Your task to perform on an android device: turn off data saver in the chrome app Image 0: 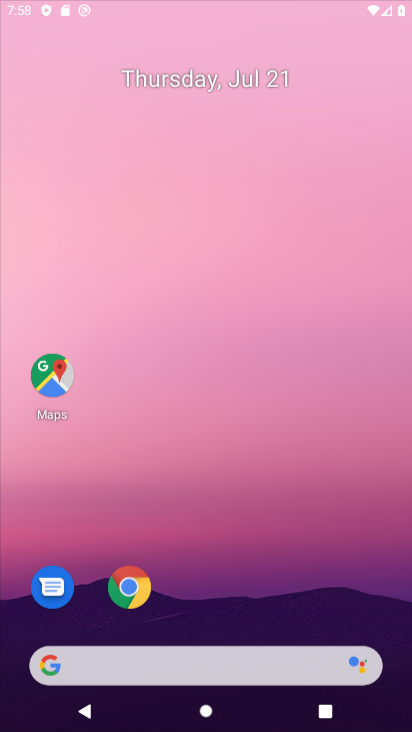
Step 0: click (258, 25)
Your task to perform on an android device: turn off data saver in the chrome app Image 1: 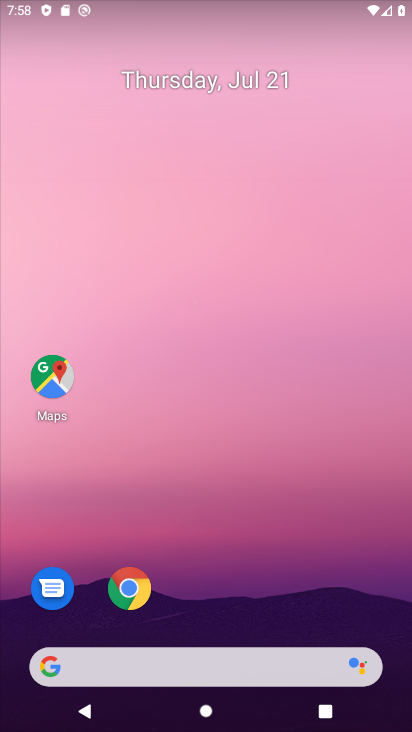
Step 1: drag from (217, 575) to (186, 228)
Your task to perform on an android device: turn off data saver in the chrome app Image 2: 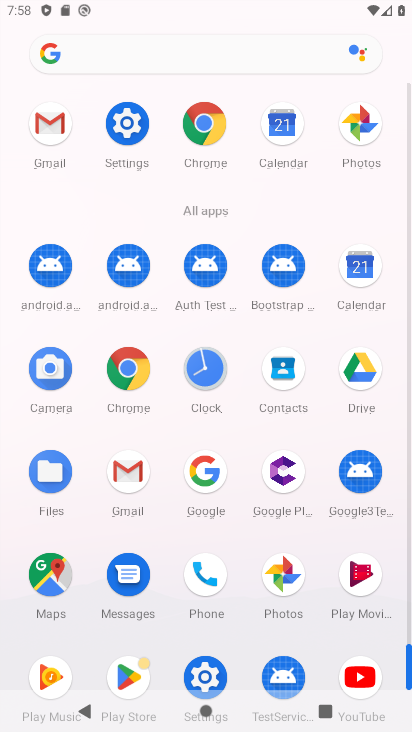
Step 2: click (203, 131)
Your task to perform on an android device: turn off data saver in the chrome app Image 3: 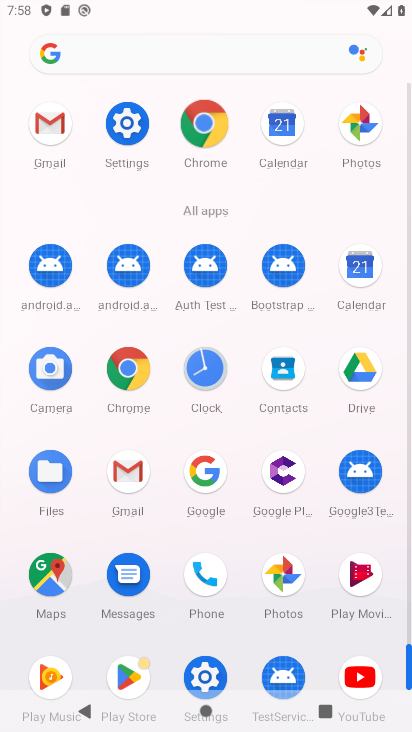
Step 3: click (202, 132)
Your task to perform on an android device: turn off data saver in the chrome app Image 4: 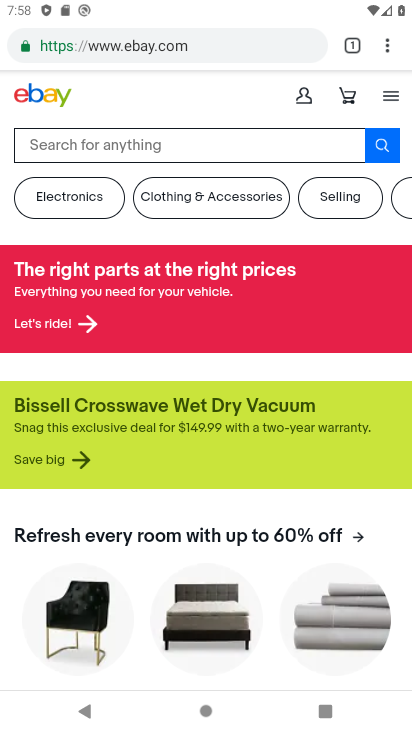
Step 4: drag from (379, 40) to (219, 552)
Your task to perform on an android device: turn off data saver in the chrome app Image 5: 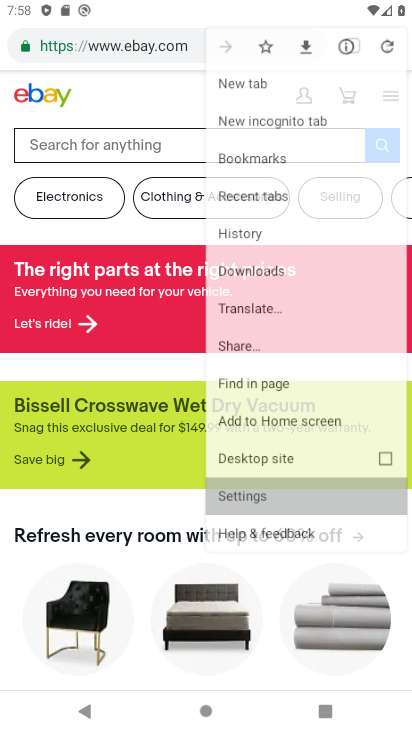
Step 5: click (219, 551)
Your task to perform on an android device: turn off data saver in the chrome app Image 6: 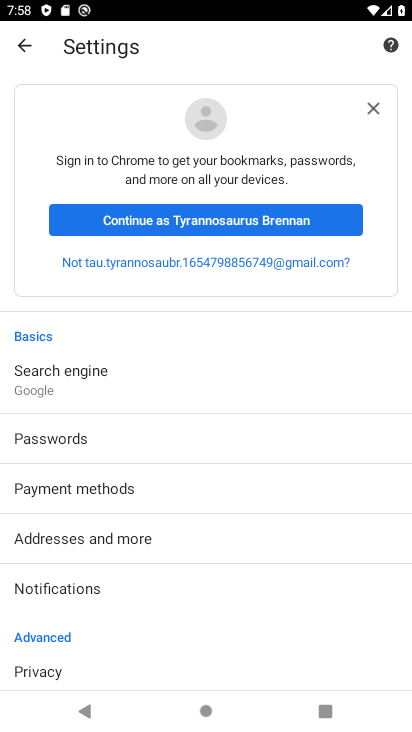
Step 6: drag from (183, 370) to (171, 277)
Your task to perform on an android device: turn off data saver in the chrome app Image 7: 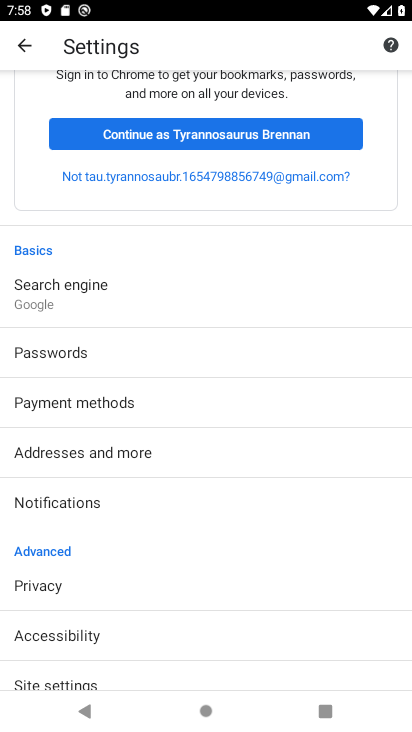
Step 7: drag from (137, 408) to (135, 324)
Your task to perform on an android device: turn off data saver in the chrome app Image 8: 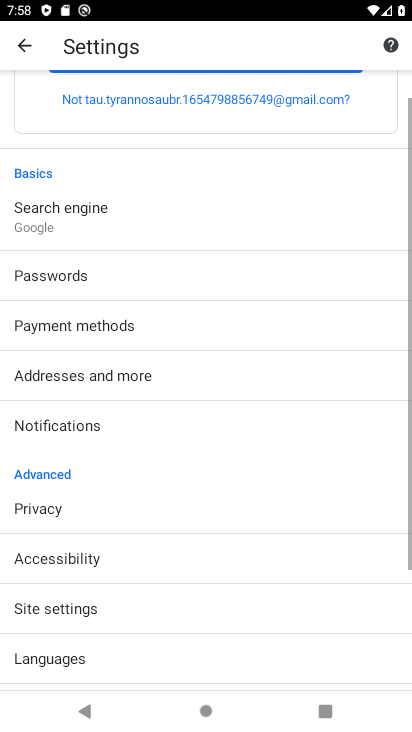
Step 8: drag from (160, 505) to (143, 315)
Your task to perform on an android device: turn off data saver in the chrome app Image 9: 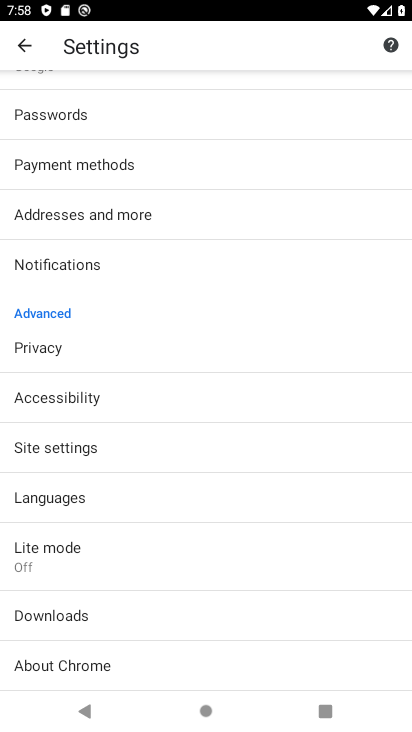
Step 9: click (47, 546)
Your task to perform on an android device: turn off data saver in the chrome app Image 10: 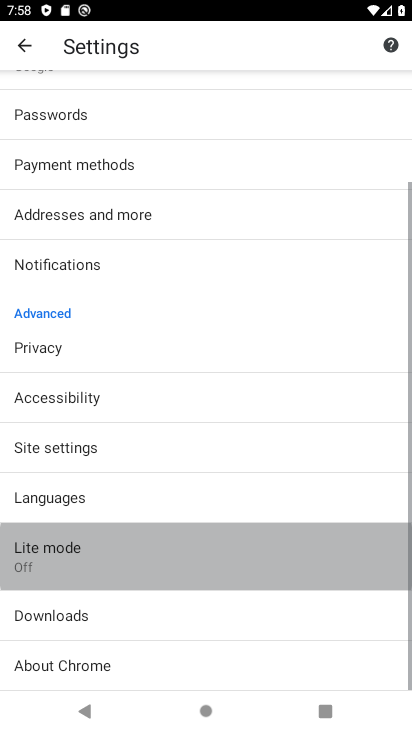
Step 10: click (47, 546)
Your task to perform on an android device: turn off data saver in the chrome app Image 11: 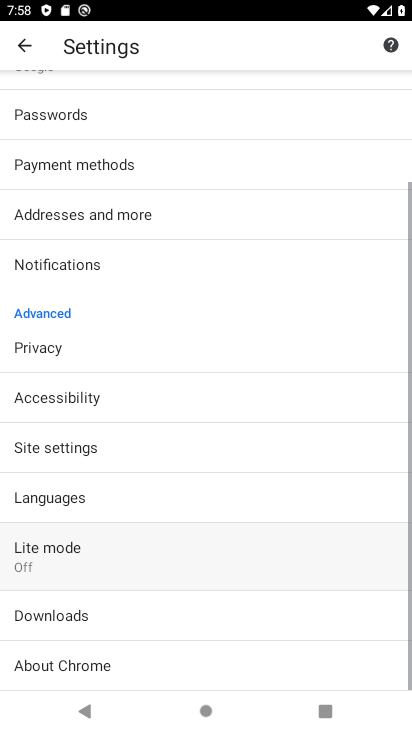
Step 11: click (47, 546)
Your task to perform on an android device: turn off data saver in the chrome app Image 12: 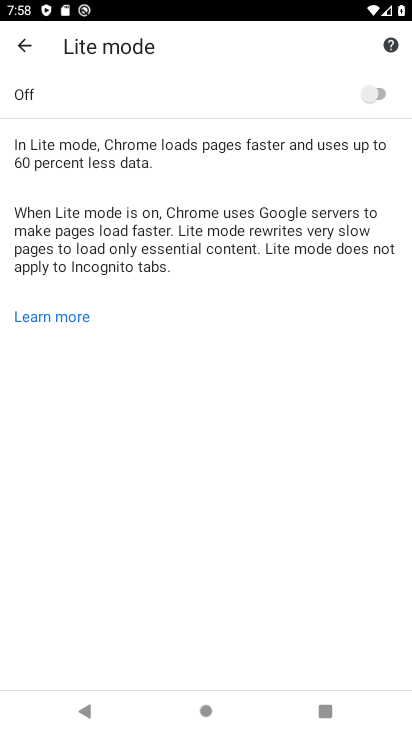
Step 12: task complete